Your task to perform on an android device: Open eBay Image 0: 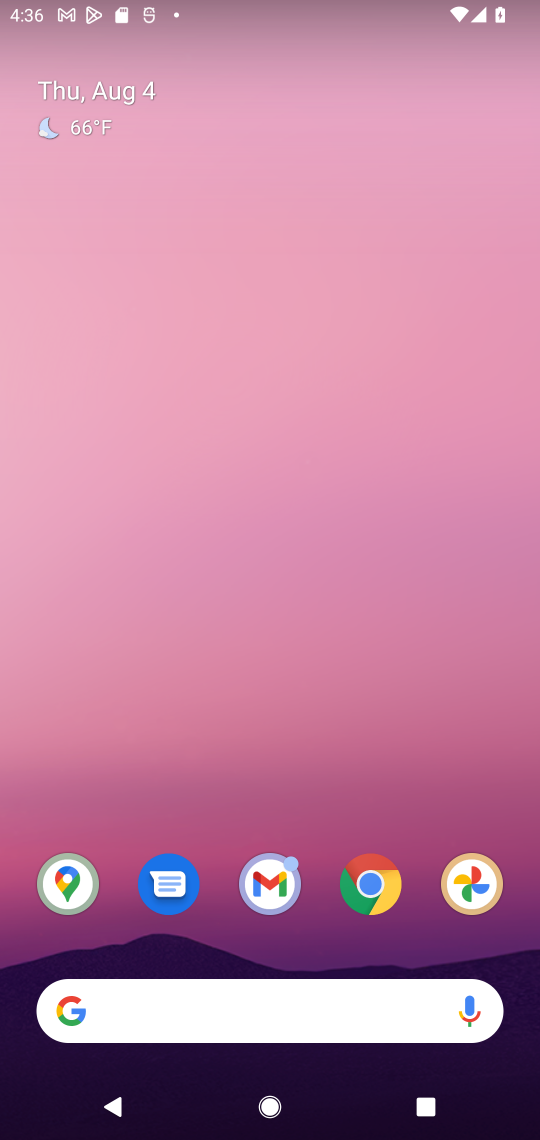
Step 0: click (363, 904)
Your task to perform on an android device: Open eBay Image 1: 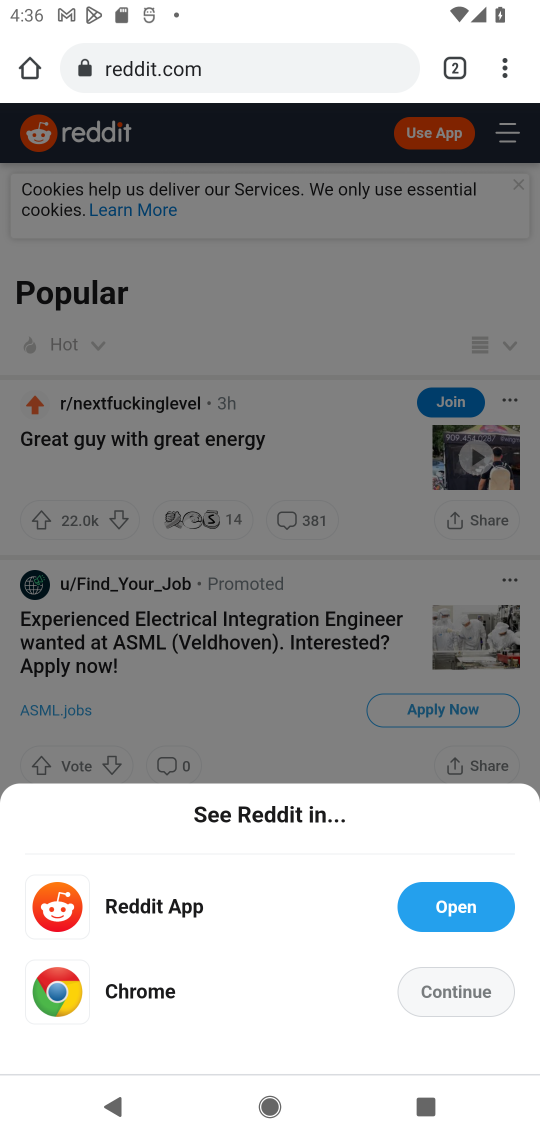
Step 1: click (158, 77)
Your task to perform on an android device: Open eBay Image 2: 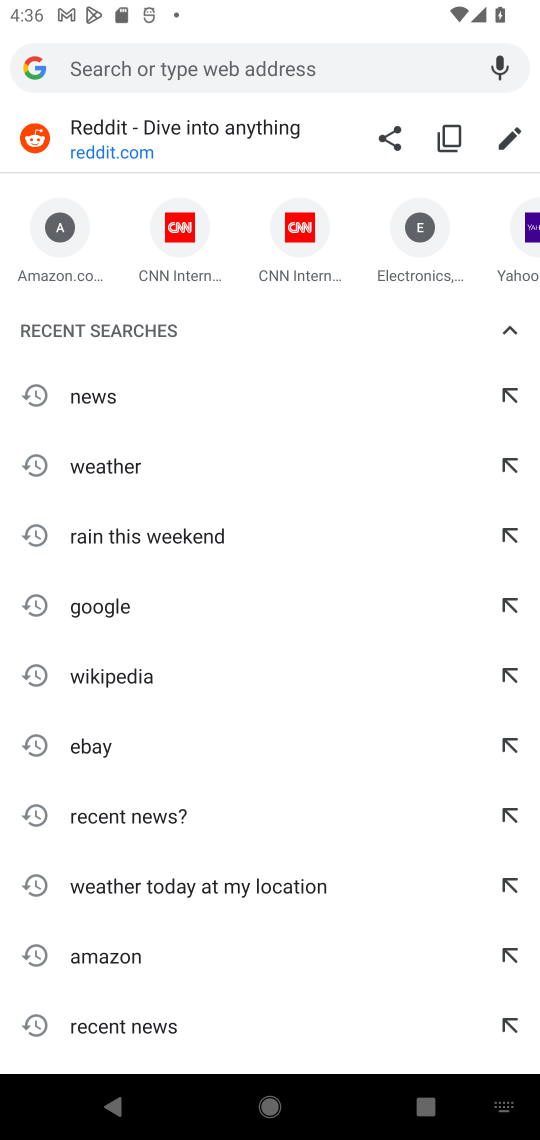
Step 2: type "ebay"
Your task to perform on an android device: Open eBay Image 3: 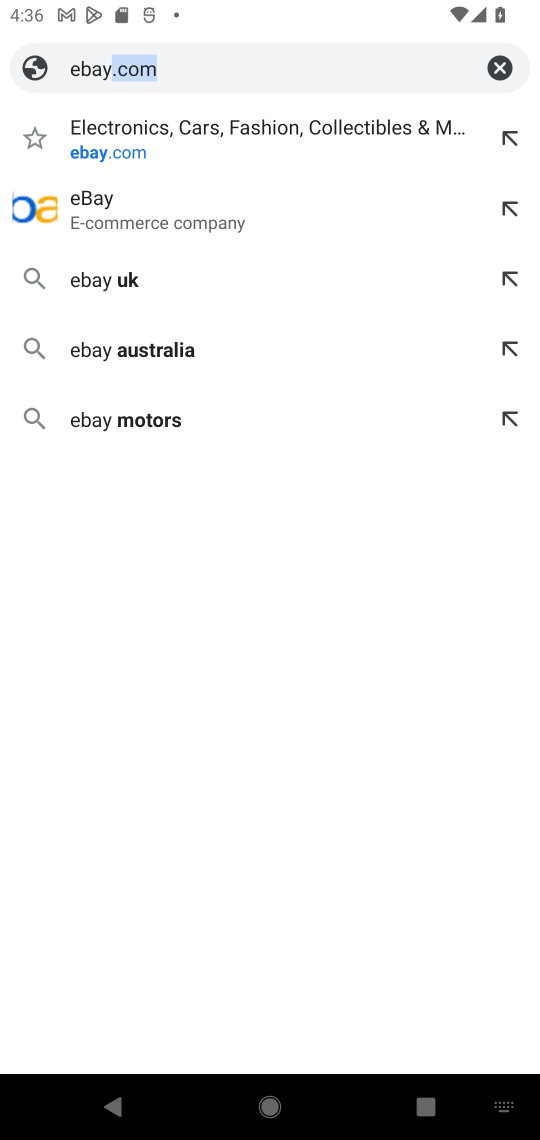
Step 3: click (244, 166)
Your task to perform on an android device: Open eBay Image 4: 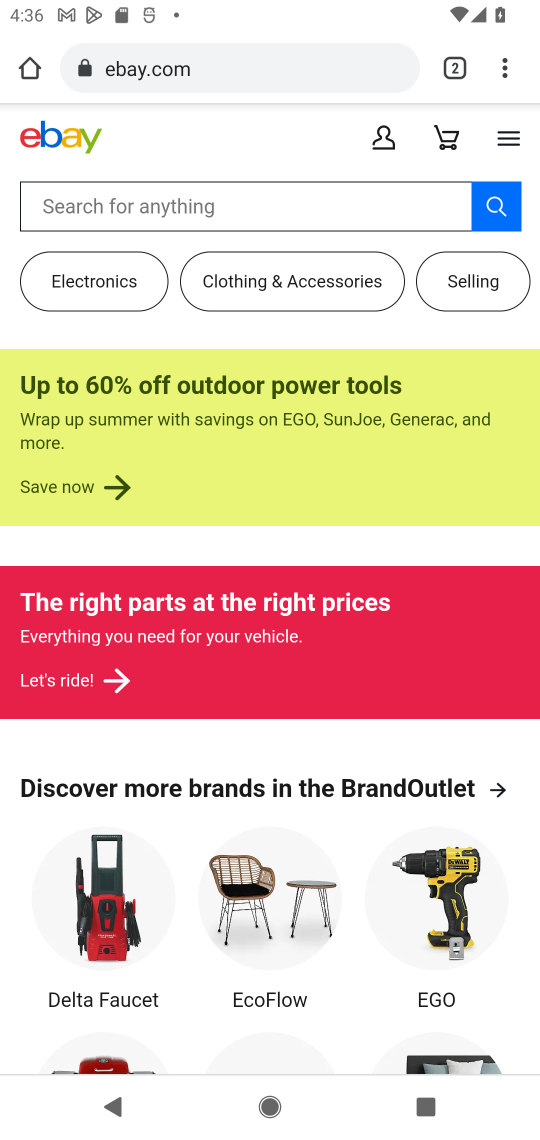
Step 4: task complete